Your task to perform on an android device: What's the weather today? Image 0: 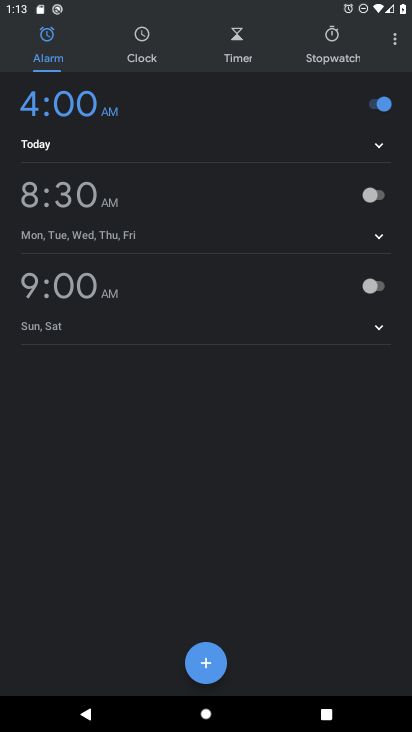
Step 0: press home button
Your task to perform on an android device: What's the weather today? Image 1: 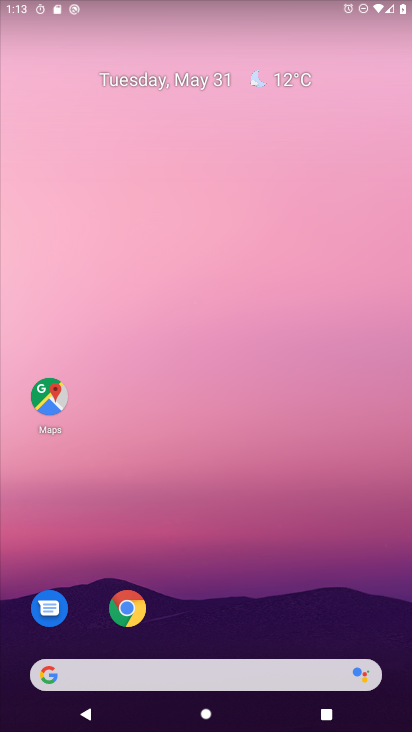
Step 1: click (294, 80)
Your task to perform on an android device: What's the weather today? Image 2: 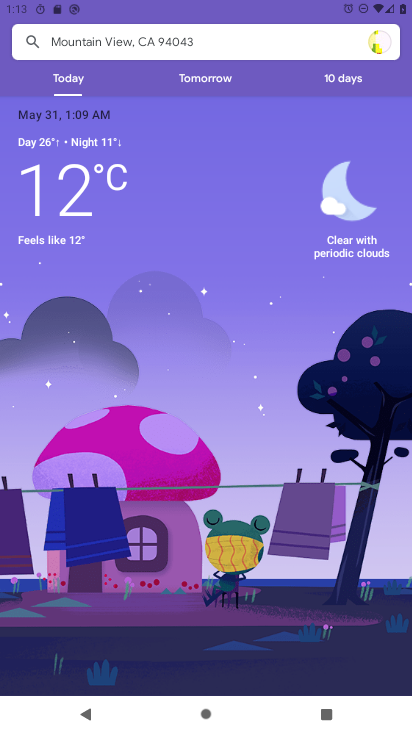
Step 2: task complete